Your task to perform on an android device: change the upload size in google photos Image 0: 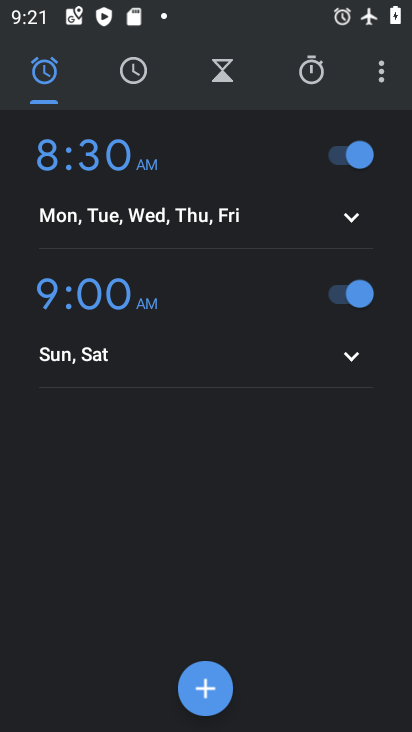
Step 0: press home button
Your task to perform on an android device: change the upload size in google photos Image 1: 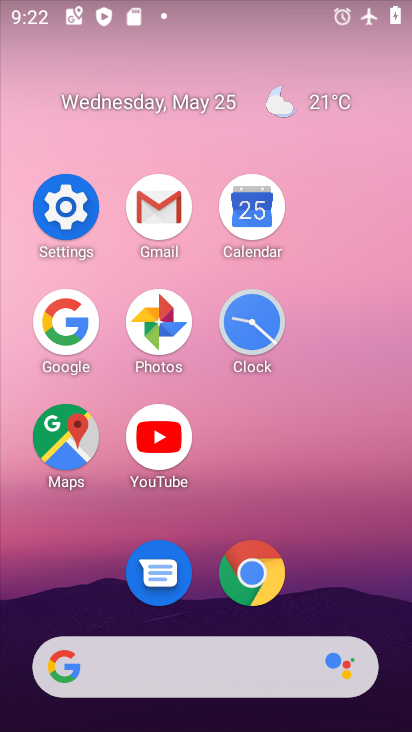
Step 1: click (175, 321)
Your task to perform on an android device: change the upload size in google photos Image 2: 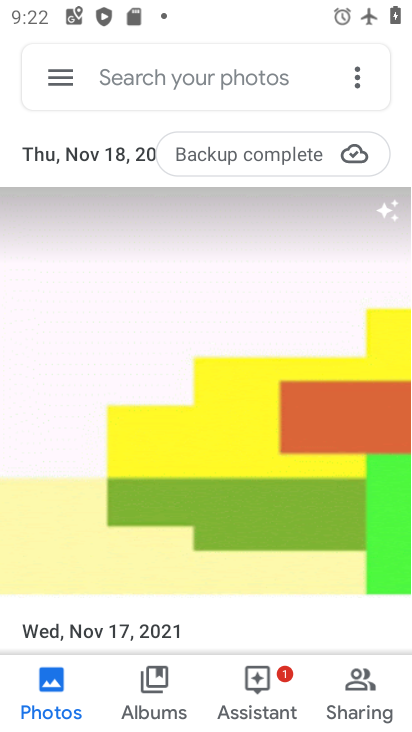
Step 2: click (70, 87)
Your task to perform on an android device: change the upload size in google photos Image 3: 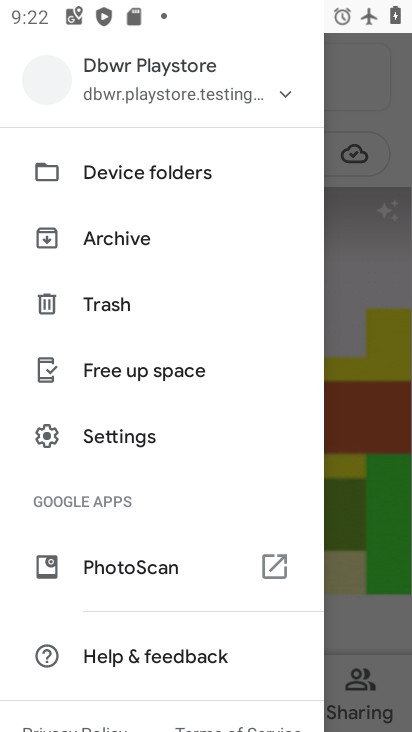
Step 3: drag from (237, 597) to (187, 218)
Your task to perform on an android device: change the upload size in google photos Image 4: 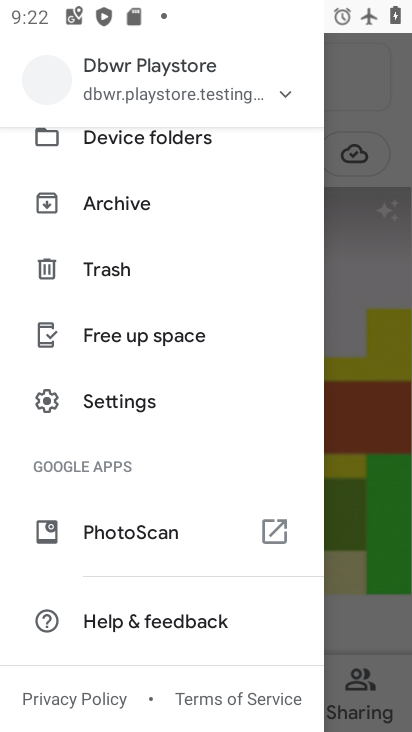
Step 4: click (117, 406)
Your task to perform on an android device: change the upload size in google photos Image 5: 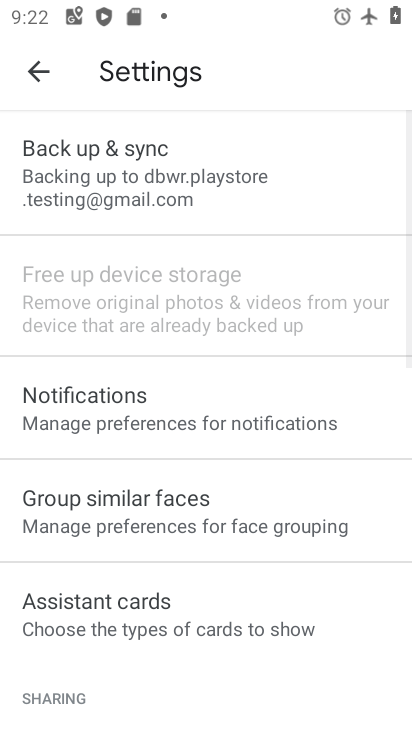
Step 5: click (232, 187)
Your task to perform on an android device: change the upload size in google photos Image 6: 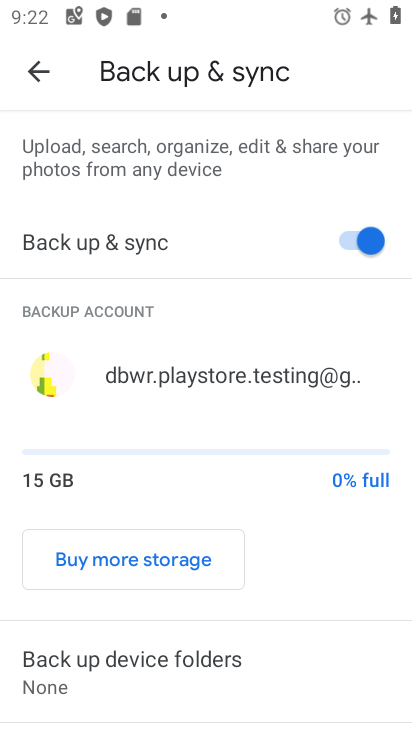
Step 6: drag from (285, 564) to (253, 104)
Your task to perform on an android device: change the upload size in google photos Image 7: 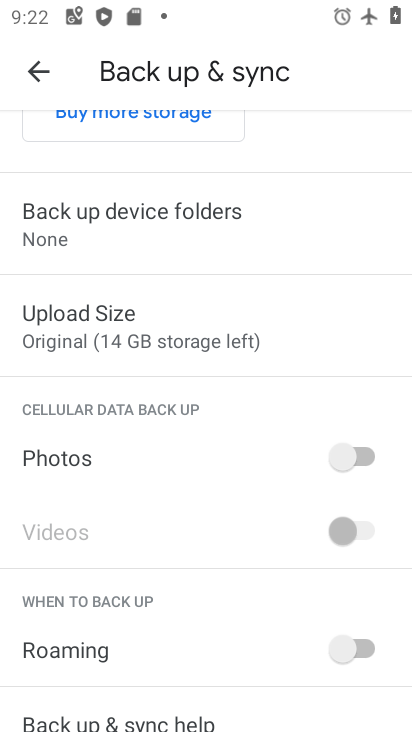
Step 7: click (266, 330)
Your task to perform on an android device: change the upload size in google photos Image 8: 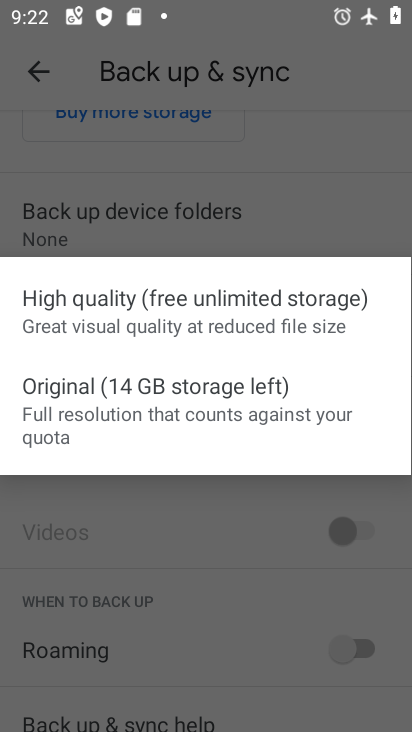
Step 8: click (291, 393)
Your task to perform on an android device: change the upload size in google photos Image 9: 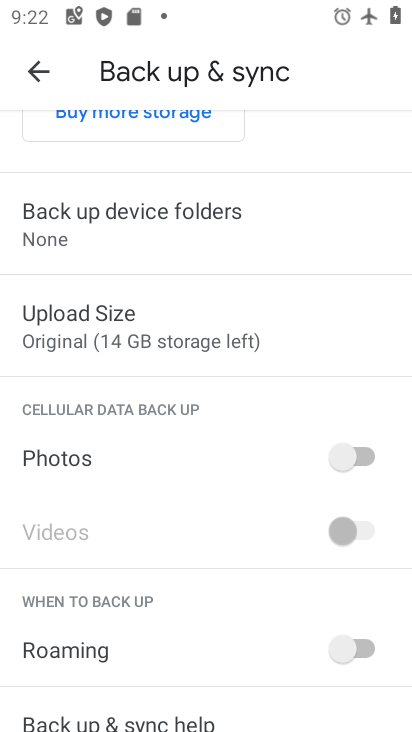
Step 9: task complete